Your task to perform on an android device: turn off airplane mode Image 0: 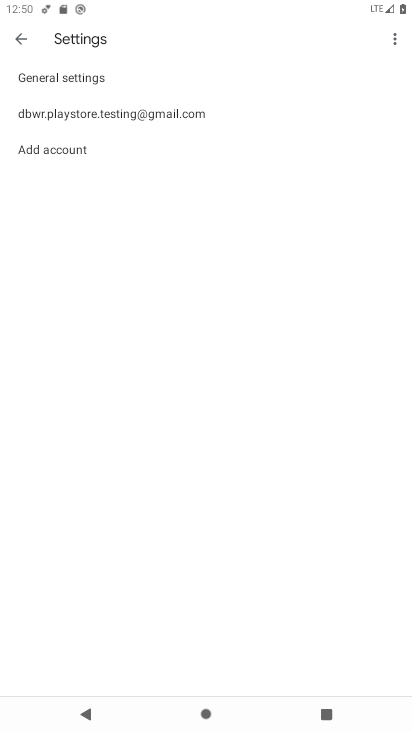
Step 0: press home button
Your task to perform on an android device: turn off airplane mode Image 1: 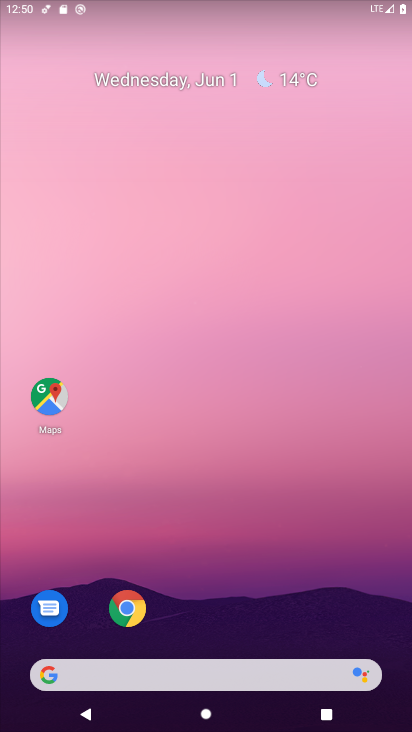
Step 1: drag from (215, 580) to (244, 5)
Your task to perform on an android device: turn off airplane mode Image 2: 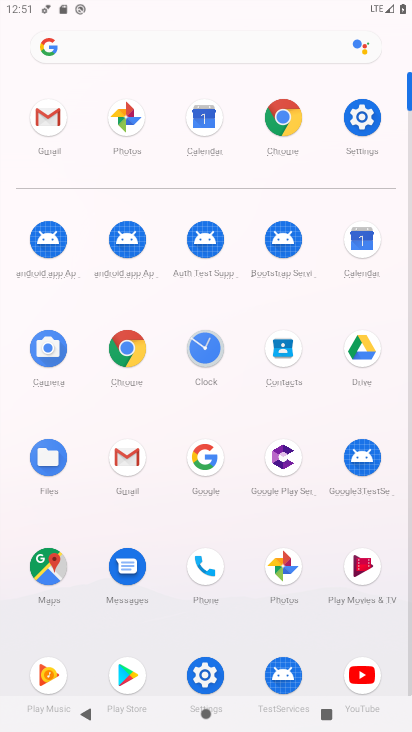
Step 2: click (381, 133)
Your task to perform on an android device: turn off airplane mode Image 3: 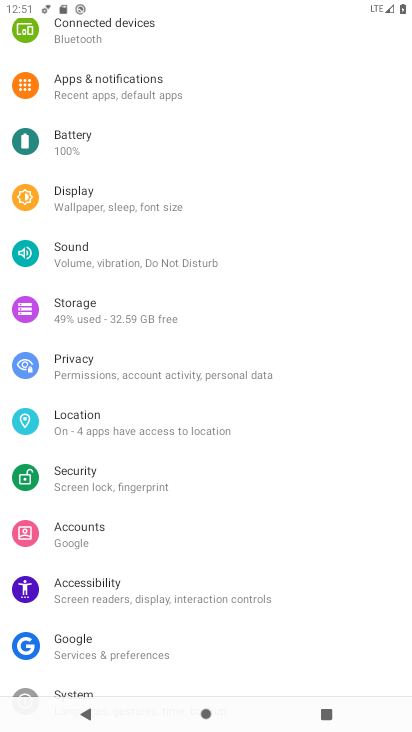
Step 3: drag from (204, 172) to (156, 726)
Your task to perform on an android device: turn off airplane mode Image 4: 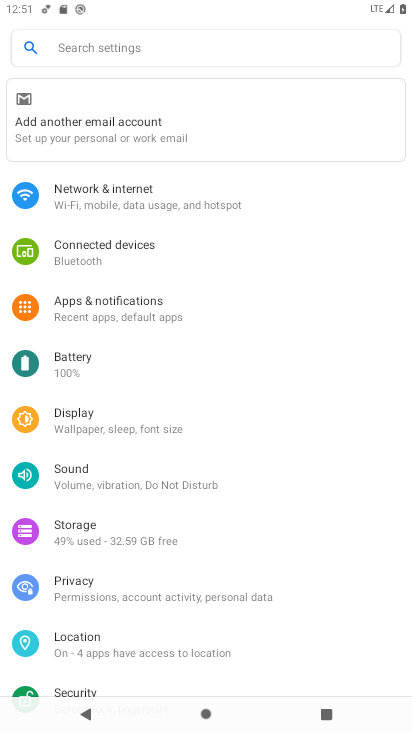
Step 4: click (163, 200)
Your task to perform on an android device: turn off airplane mode Image 5: 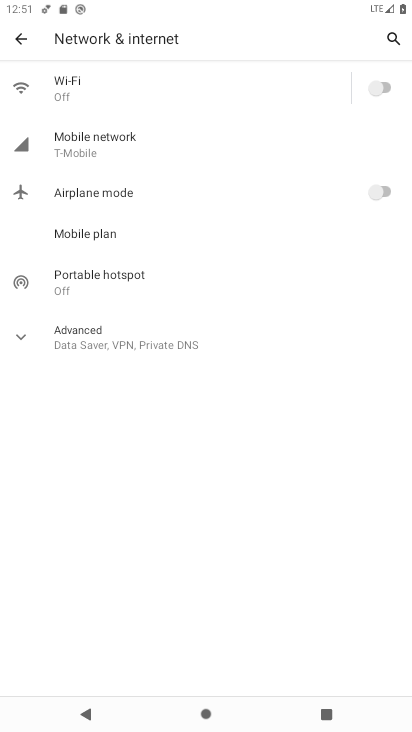
Step 5: task complete